Your task to perform on an android device: Go to Maps Image 0: 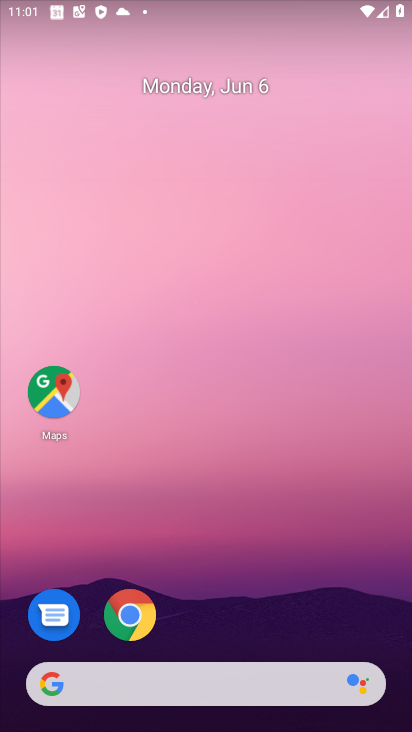
Step 0: click (64, 400)
Your task to perform on an android device: Go to Maps Image 1: 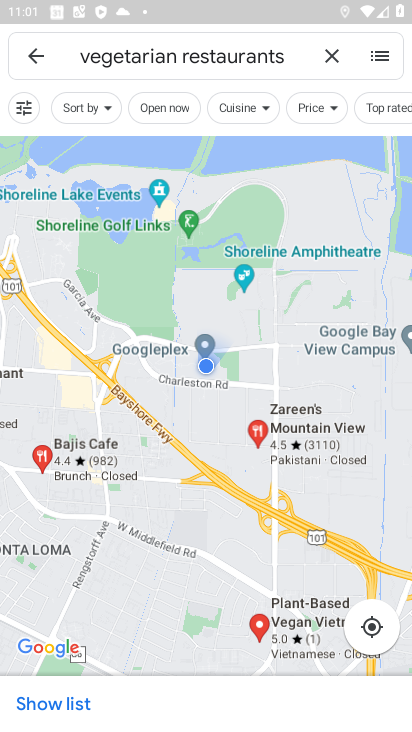
Step 1: task complete